Your task to perform on an android device: Clear all items from cart on costco. Image 0: 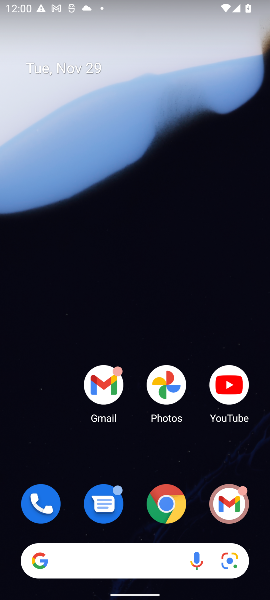
Step 0: click (166, 510)
Your task to perform on an android device: Clear all items from cart on costco. Image 1: 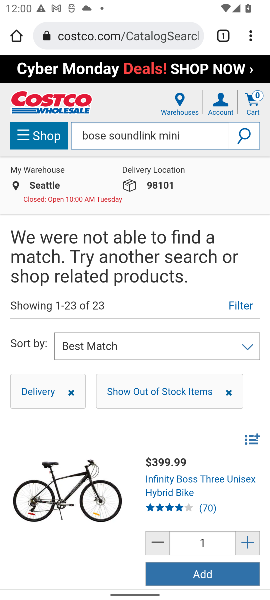
Step 1: click (250, 108)
Your task to perform on an android device: Clear all items from cart on costco. Image 2: 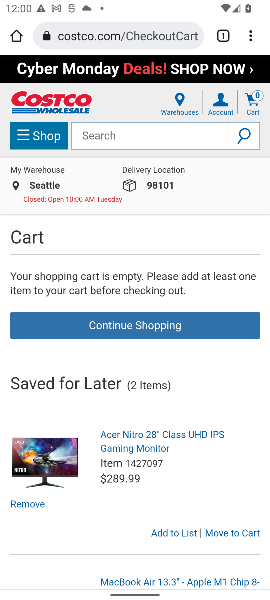
Step 2: task complete